Your task to perform on an android device: open chrome and create a bookmark for the current page Image 0: 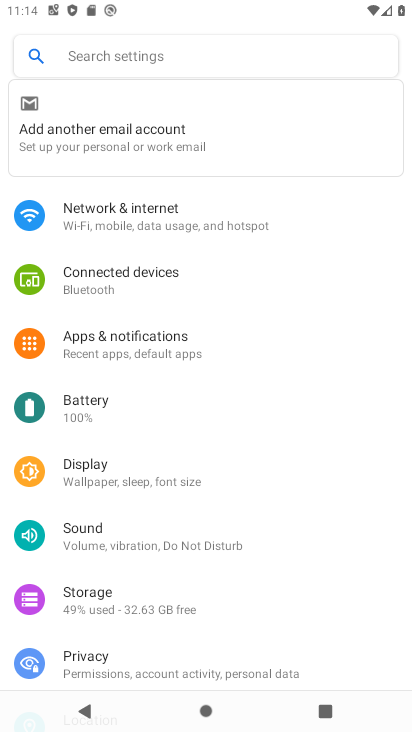
Step 0: press home button
Your task to perform on an android device: open chrome and create a bookmark for the current page Image 1: 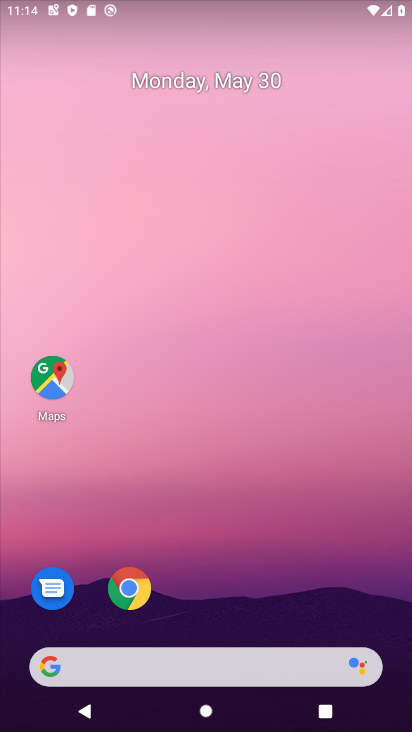
Step 1: click (126, 581)
Your task to perform on an android device: open chrome and create a bookmark for the current page Image 2: 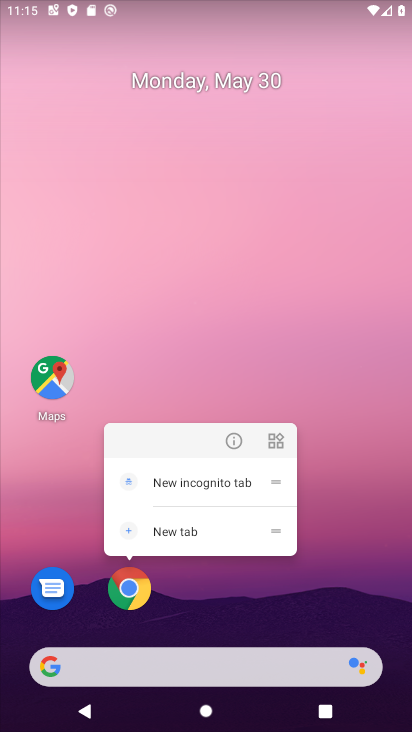
Step 2: click (124, 582)
Your task to perform on an android device: open chrome and create a bookmark for the current page Image 3: 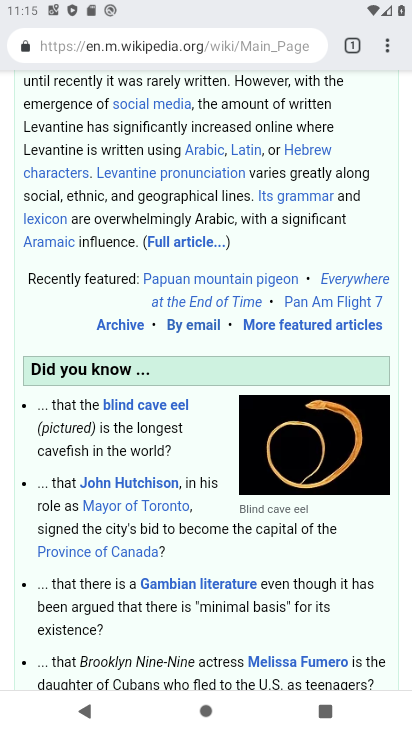
Step 3: click (387, 38)
Your task to perform on an android device: open chrome and create a bookmark for the current page Image 4: 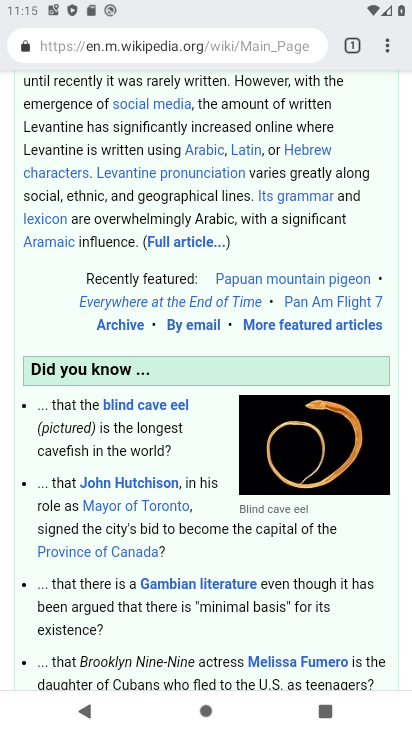
Step 4: click (387, 49)
Your task to perform on an android device: open chrome and create a bookmark for the current page Image 5: 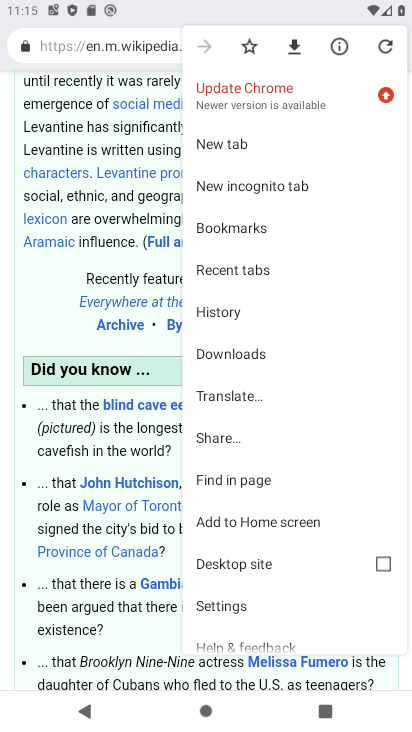
Step 5: click (244, 47)
Your task to perform on an android device: open chrome and create a bookmark for the current page Image 6: 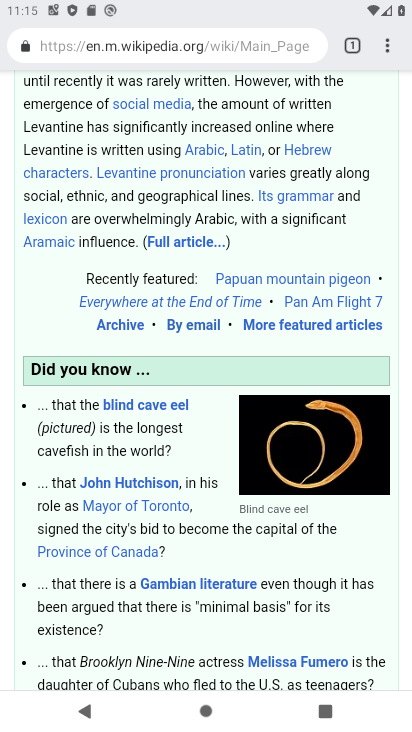
Step 6: task complete